Your task to perform on an android device: search for starred emails in the gmail app Image 0: 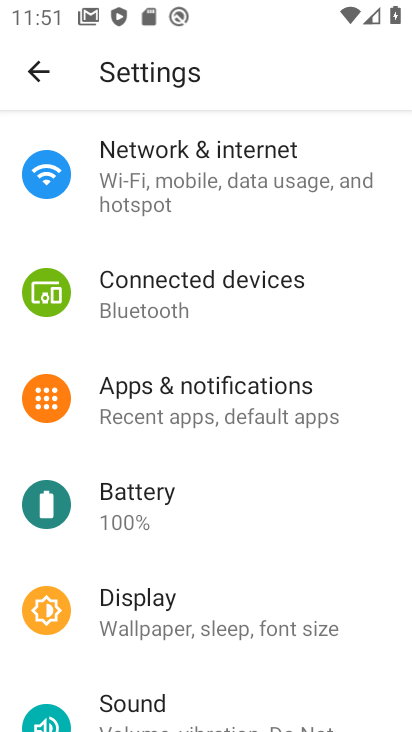
Step 0: drag from (209, 629) to (199, 281)
Your task to perform on an android device: search for starred emails in the gmail app Image 1: 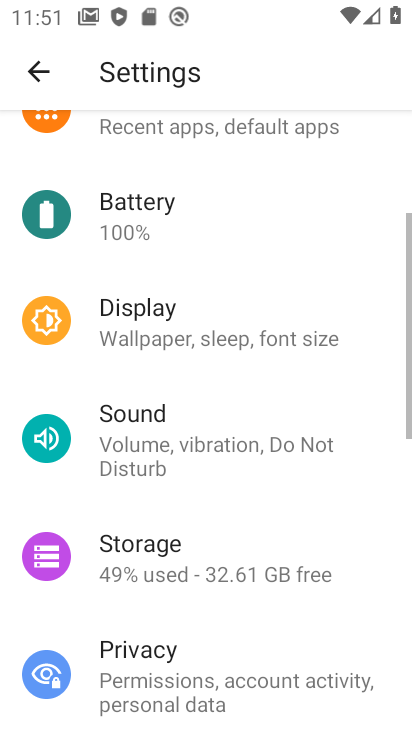
Step 1: drag from (235, 209) to (261, 712)
Your task to perform on an android device: search for starred emails in the gmail app Image 2: 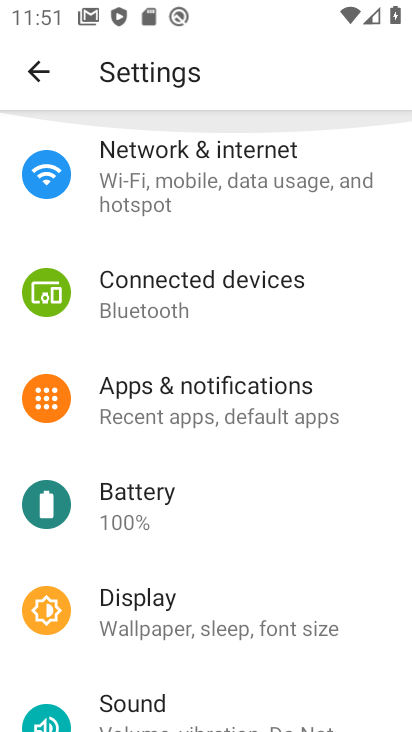
Step 2: press home button
Your task to perform on an android device: search for starred emails in the gmail app Image 3: 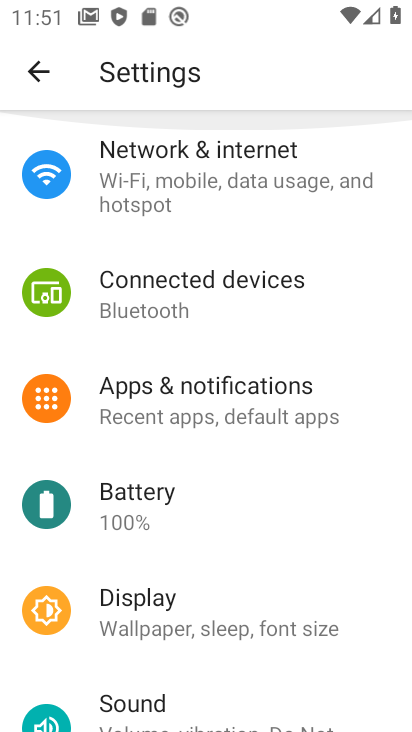
Step 3: drag from (373, 445) to (216, 107)
Your task to perform on an android device: search for starred emails in the gmail app Image 4: 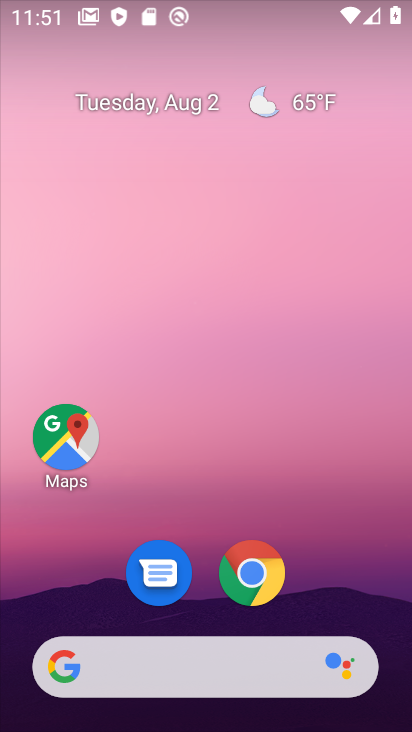
Step 4: drag from (218, 636) to (328, 16)
Your task to perform on an android device: search for starred emails in the gmail app Image 5: 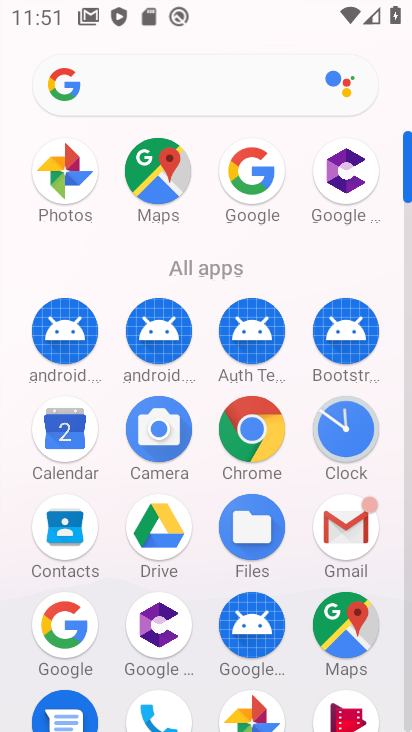
Step 5: click (360, 535)
Your task to perform on an android device: search for starred emails in the gmail app Image 6: 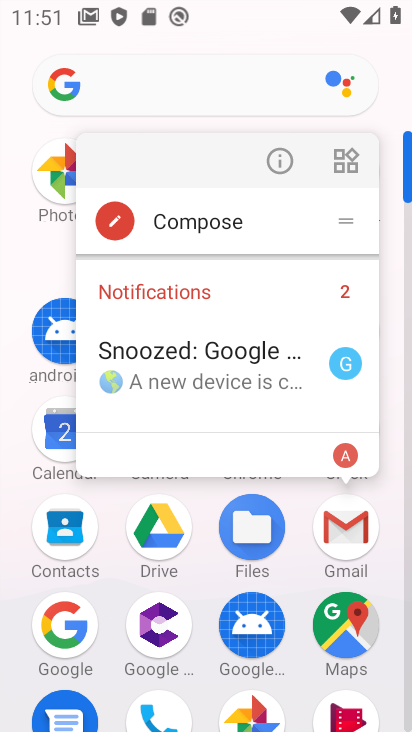
Step 6: click (281, 170)
Your task to perform on an android device: search for starred emails in the gmail app Image 7: 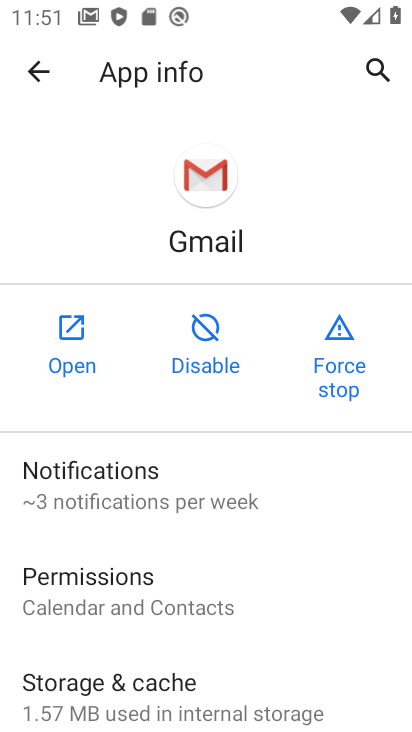
Step 7: click (74, 346)
Your task to perform on an android device: search for starred emails in the gmail app Image 8: 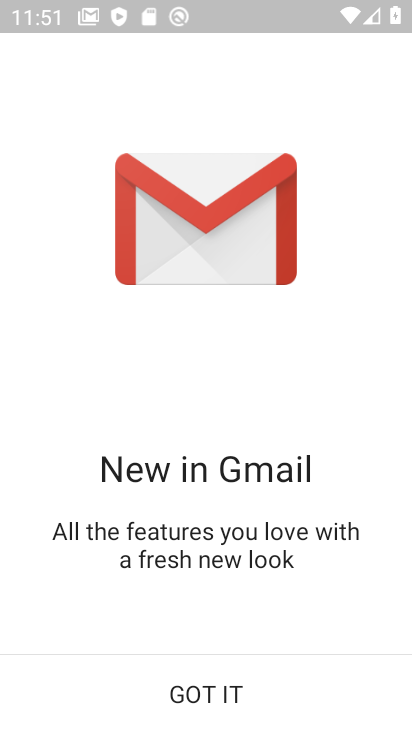
Step 8: click (213, 695)
Your task to perform on an android device: search for starred emails in the gmail app Image 9: 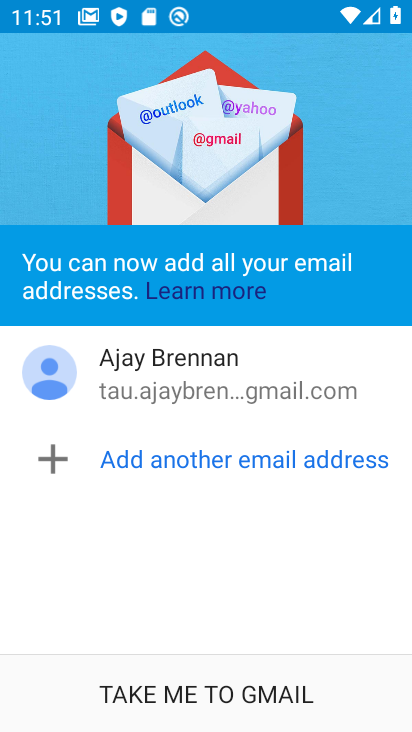
Step 9: click (204, 688)
Your task to perform on an android device: search for starred emails in the gmail app Image 10: 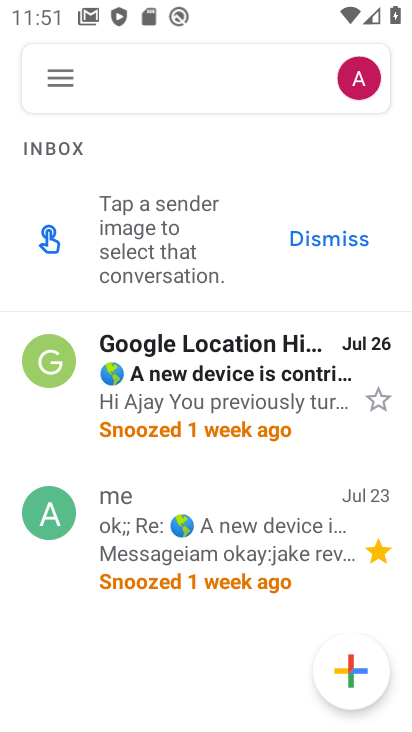
Step 10: click (58, 74)
Your task to perform on an android device: search for starred emails in the gmail app Image 11: 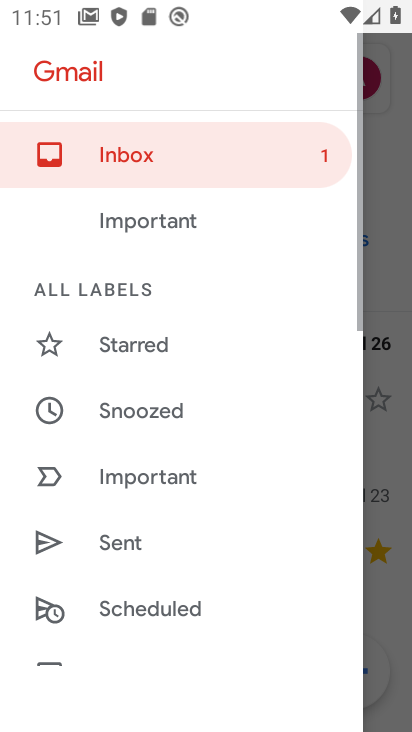
Step 11: click (151, 344)
Your task to perform on an android device: search for starred emails in the gmail app Image 12: 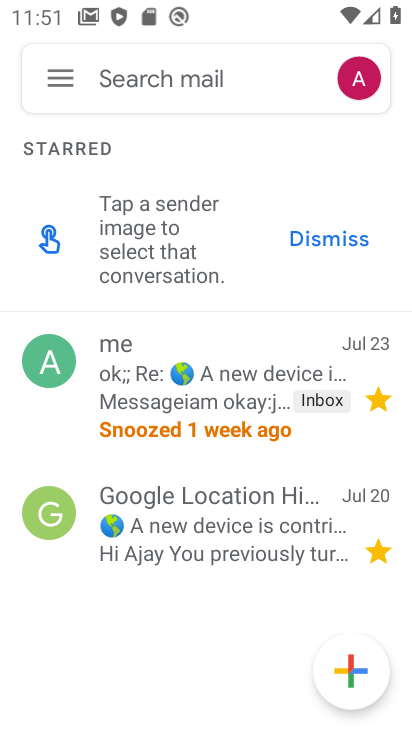
Step 12: drag from (217, 559) to (367, 178)
Your task to perform on an android device: search for starred emails in the gmail app Image 13: 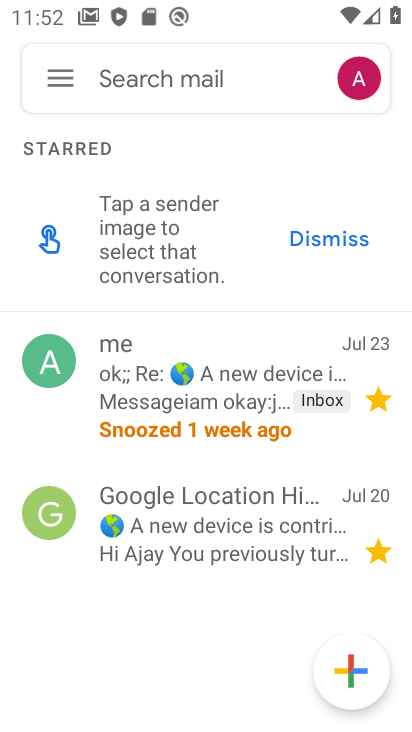
Step 13: click (59, 77)
Your task to perform on an android device: search for starred emails in the gmail app Image 14: 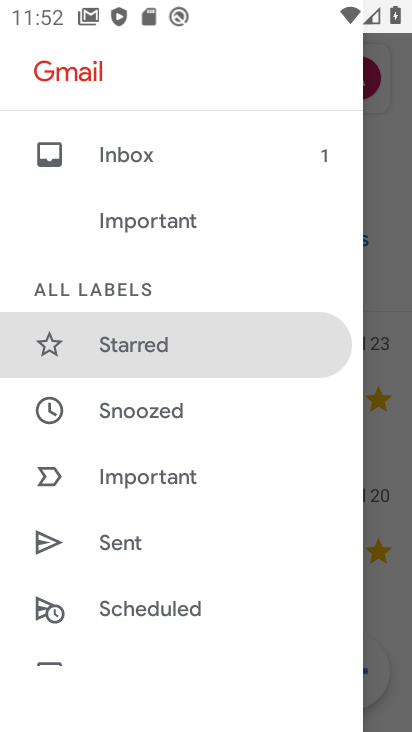
Step 14: click (136, 342)
Your task to perform on an android device: search for starred emails in the gmail app Image 15: 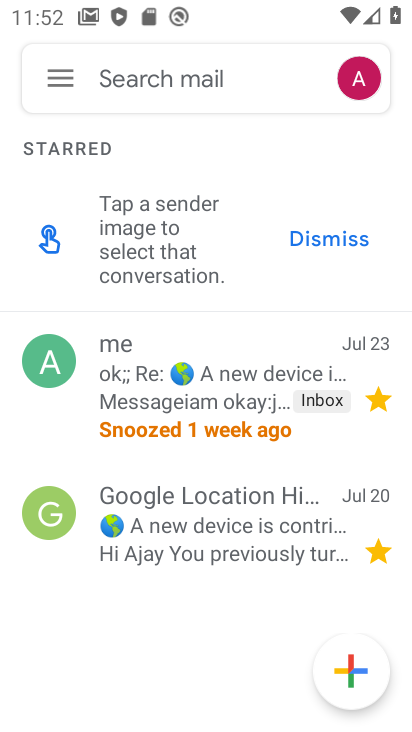
Step 15: task complete